Your task to perform on an android device: Open calendar and show me the fourth week of next month Image 0: 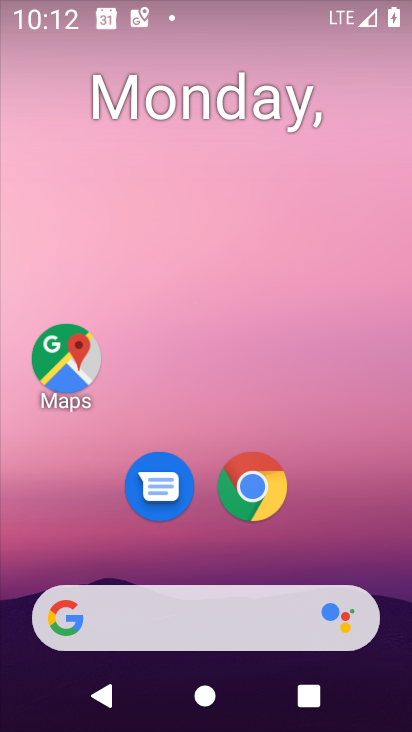
Step 0: drag from (343, 547) to (270, 47)
Your task to perform on an android device: Open calendar and show me the fourth week of next month Image 1: 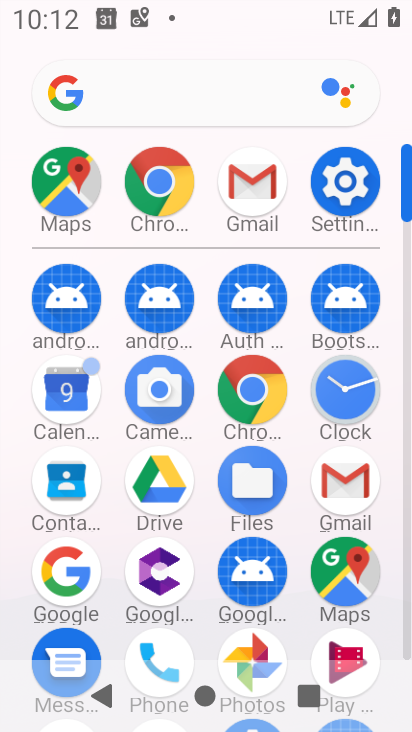
Step 1: drag from (5, 470) to (9, 266)
Your task to perform on an android device: Open calendar and show me the fourth week of next month Image 2: 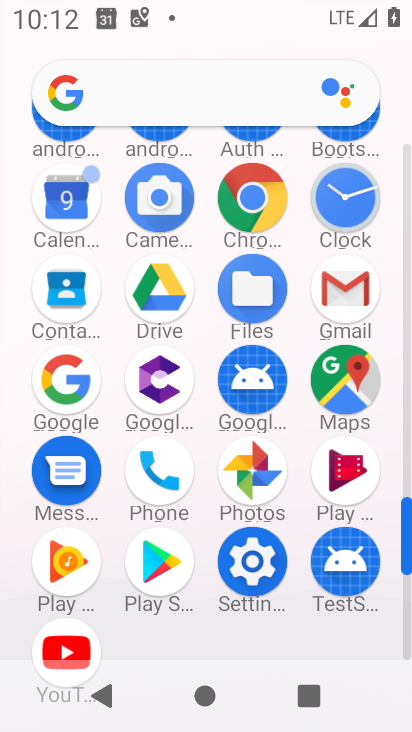
Step 2: drag from (11, 238) to (6, 479)
Your task to perform on an android device: Open calendar and show me the fourth week of next month Image 3: 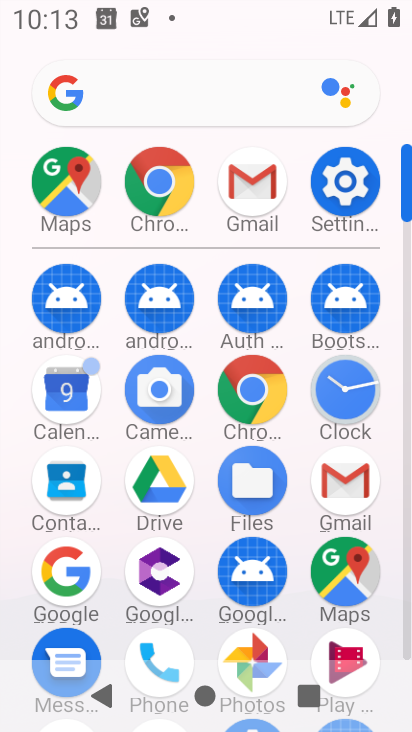
Step 3: drag from (7, 484) to (7, 267)
Your task to perform on an android device: Open calendar and show me the fourth week of next month Image 4: 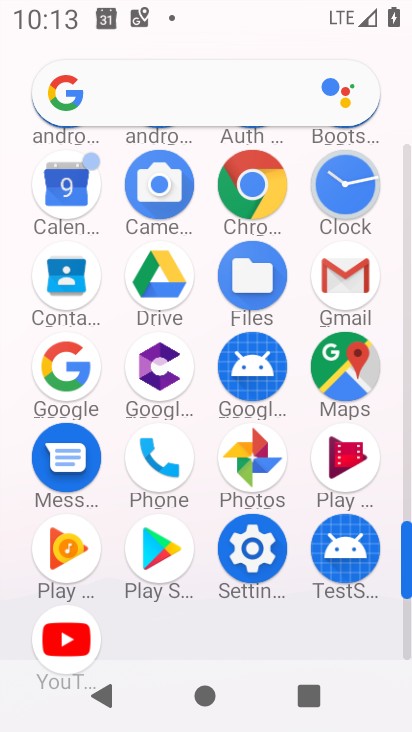
Step 4: click (66, 180)
Your task to perform on an android device: Open calendar and show me the fourth week of next month Image 5: 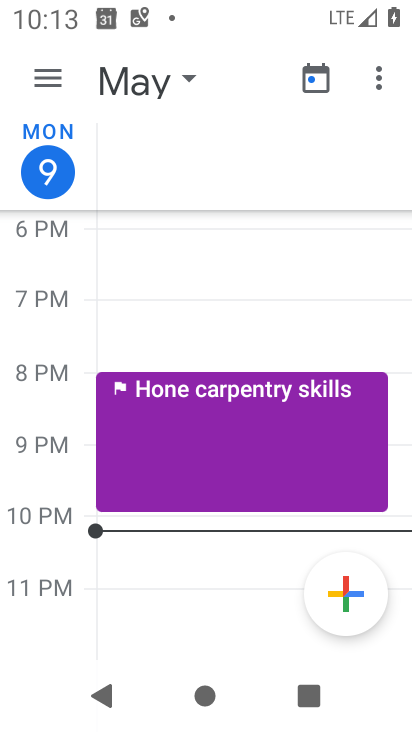
Step 5: click (148, 83)
Your task to perform on an android device: Open calendar and show me the fourth week of next month Image 6: 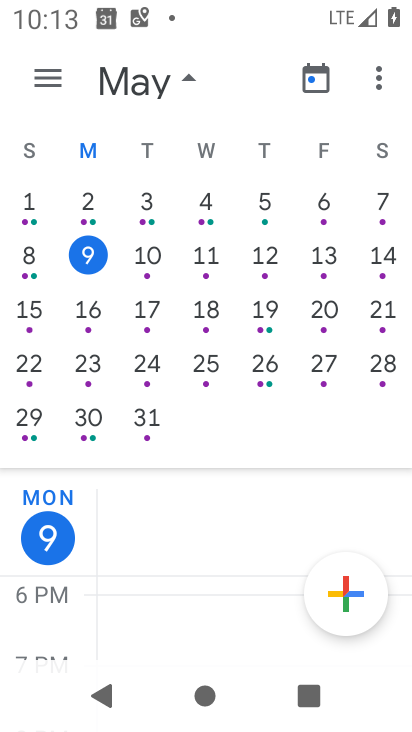
Step 6: drag from (369, 277) to (1, 161)
Your task to perform on an android device: Open calendar and show me the fourth week of next month Image 7: 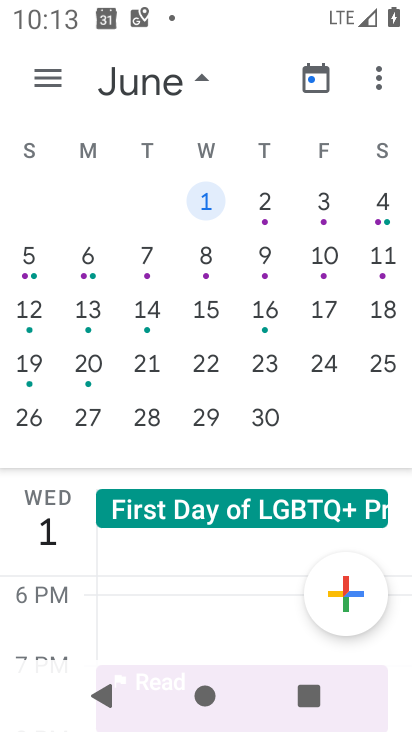
Step 7: click (28, 362)
Your task to perform on an android device: Open calendar and show me the fourth week of next month Image 8: 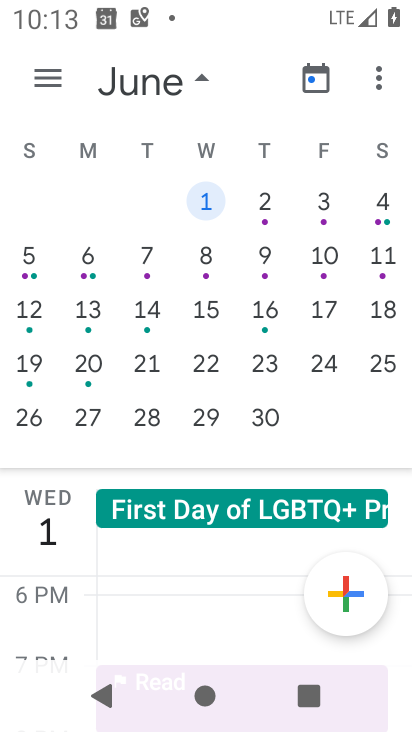
Step 8: click (31, 360)
Your task to perform on an android device: Open calendar and show me the fourth week of next month Image 9: 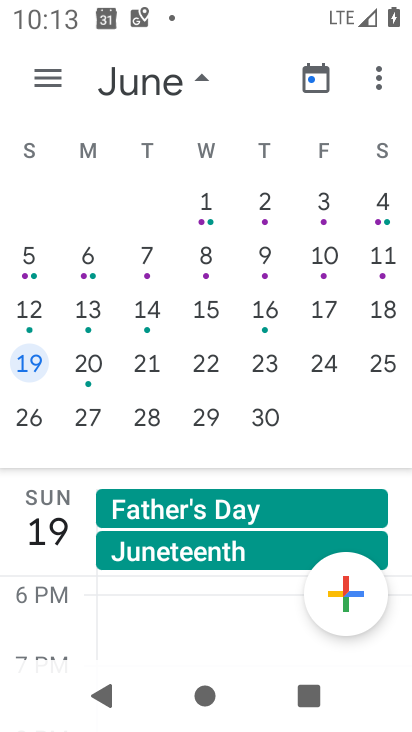
Step 9: click (60, 72)
Your task to perform on an android device: Open calendar and show me the fourth week of next month Image 10: 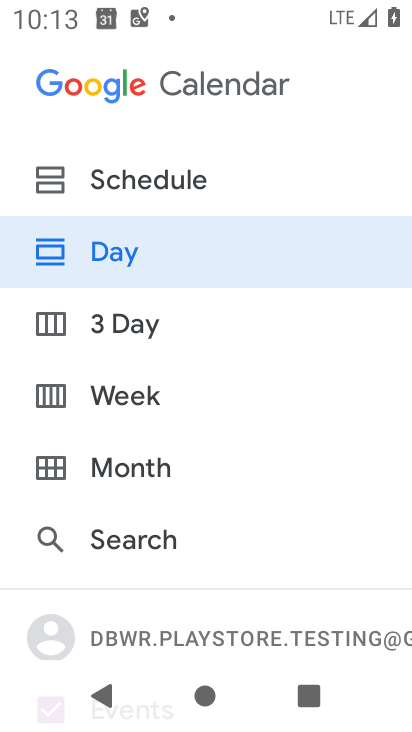
Step 10: click (98, 403)
Your task to perform on an android device: Open calendar and show me the fourth week of next month Image 11: 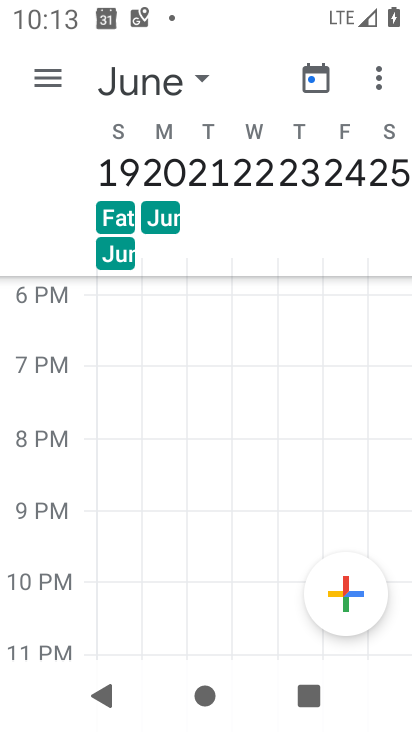
Step 11: task complete